Your task to perform on an android device: What's on my calendar tomorrow? Image 0: 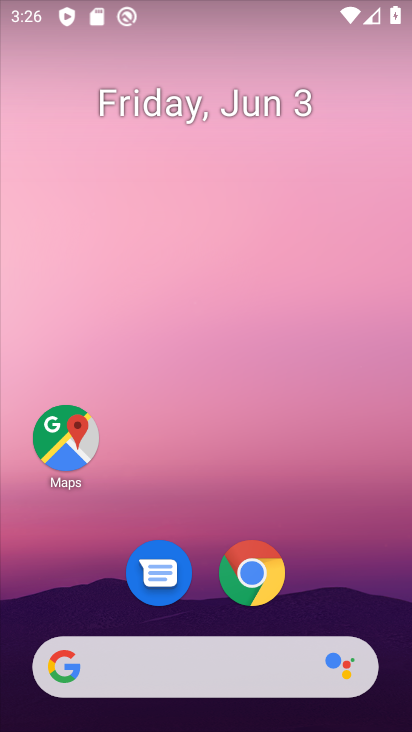
Step 0: drag from (390, 679) to (309, 203)
Your task to perform on an android device: What's on my calendar tomorrow? Image 1: 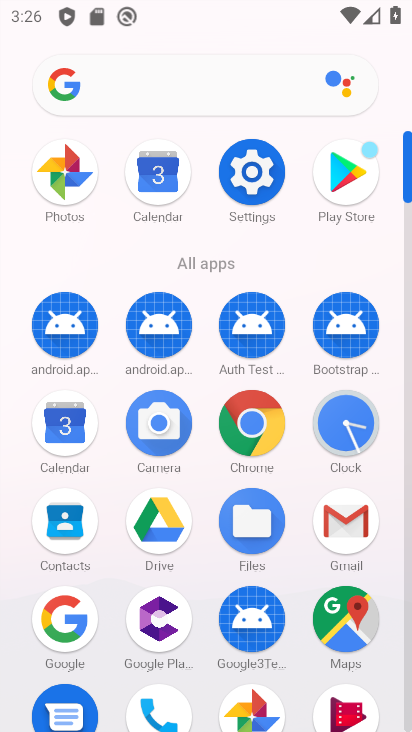
Step 1: click (56, 405)
Your task to perform on an android device: What's on my calendar tomorrow? Image 2: 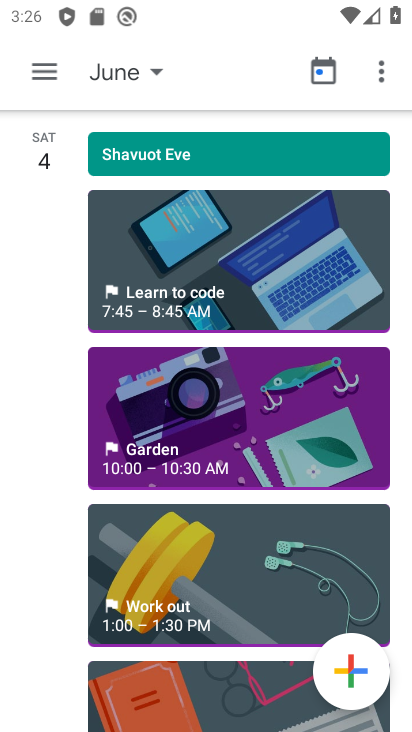
Step 2: task complete